Your task to perform on an android device: toggle data saver in the chrome app Image 0: 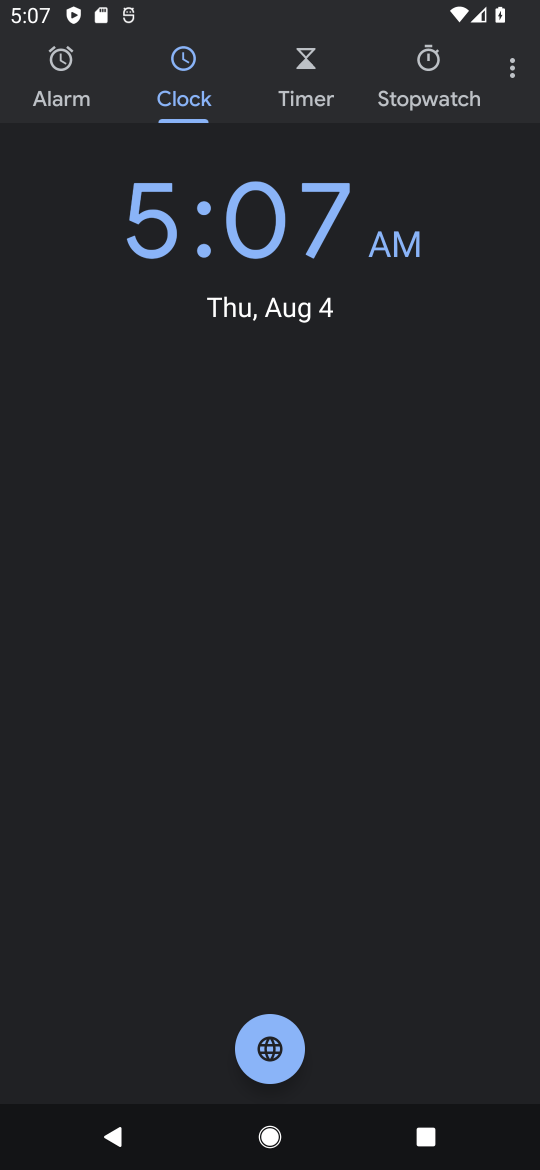
Step 0: press home button
Your task to perform on an android device: toggle data saver in the chrome app Image 1: 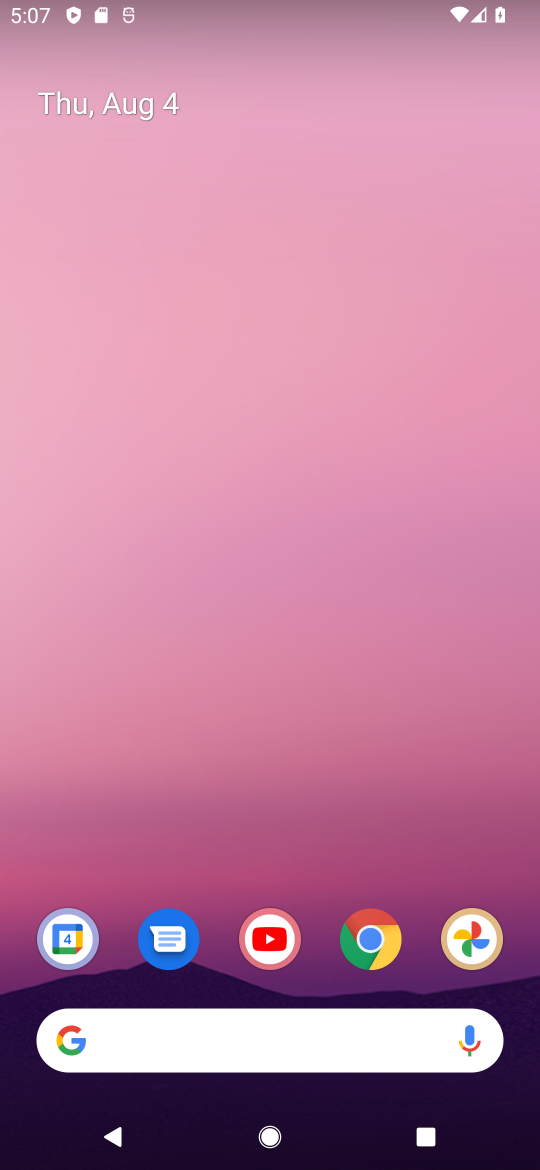
Step 1: click (355, 946)
Your task to perform on an android device: toggle data saver in the chrome app Image 2: 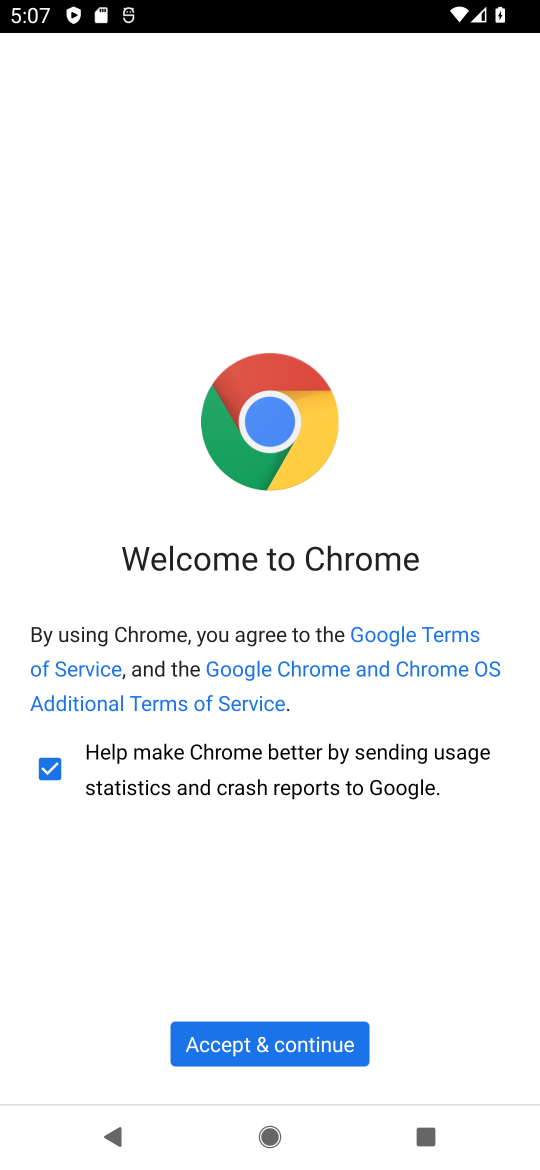
Step 2: click (331, 1050)
Your task to perform on an android device: toggle data saver in the chrome app Image 3: 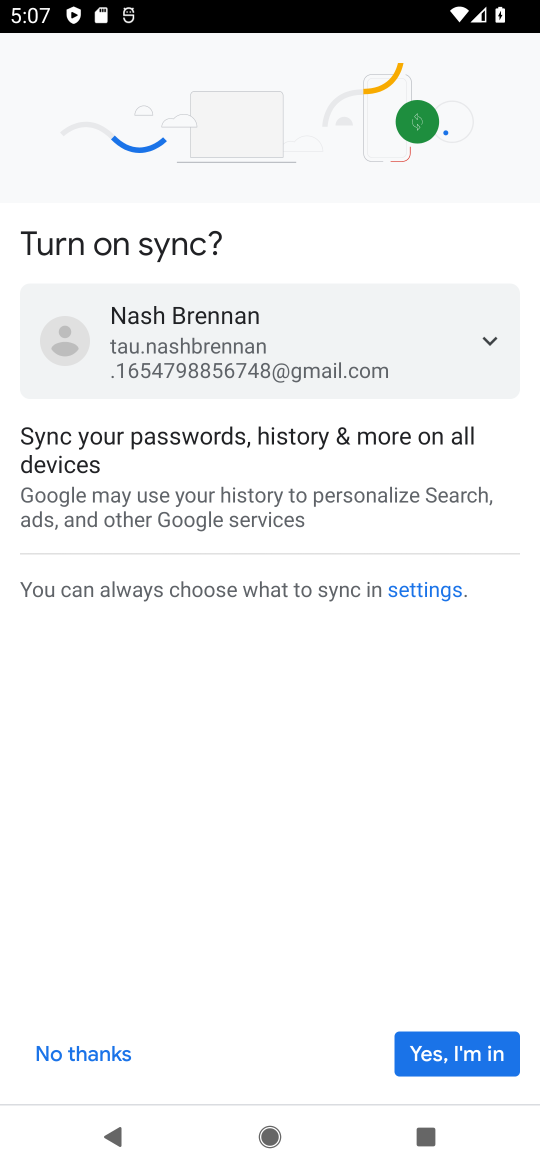
Step 3: click (442, 1048)
Your task to perform on an android device: toggle data saver in the chrome app Image 4: 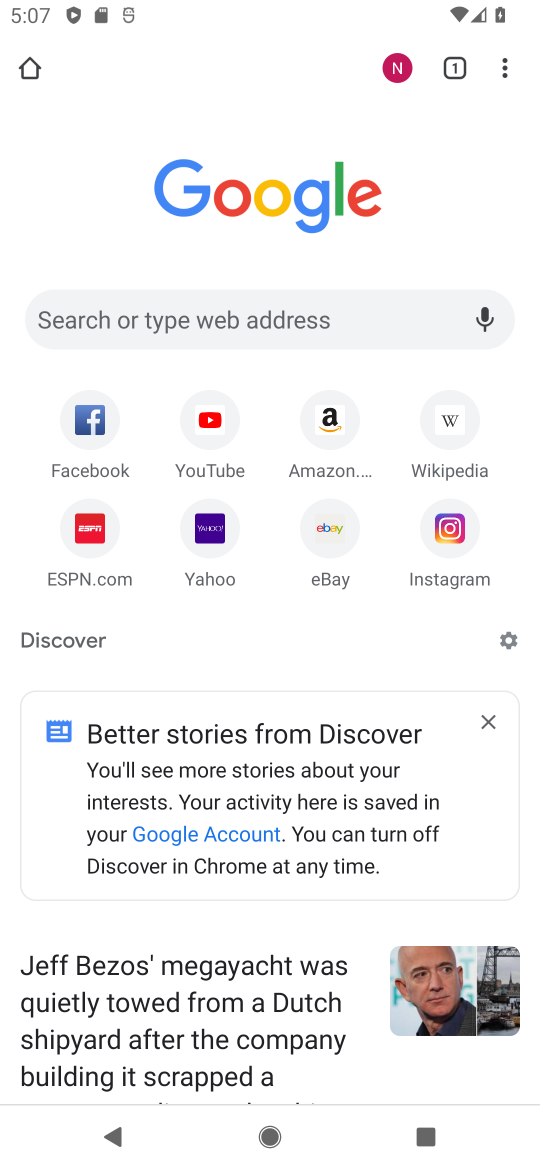
Step 4: click (506, 65)
Your task to perform on an android device: toggle data saver in the chrome app Image 5: 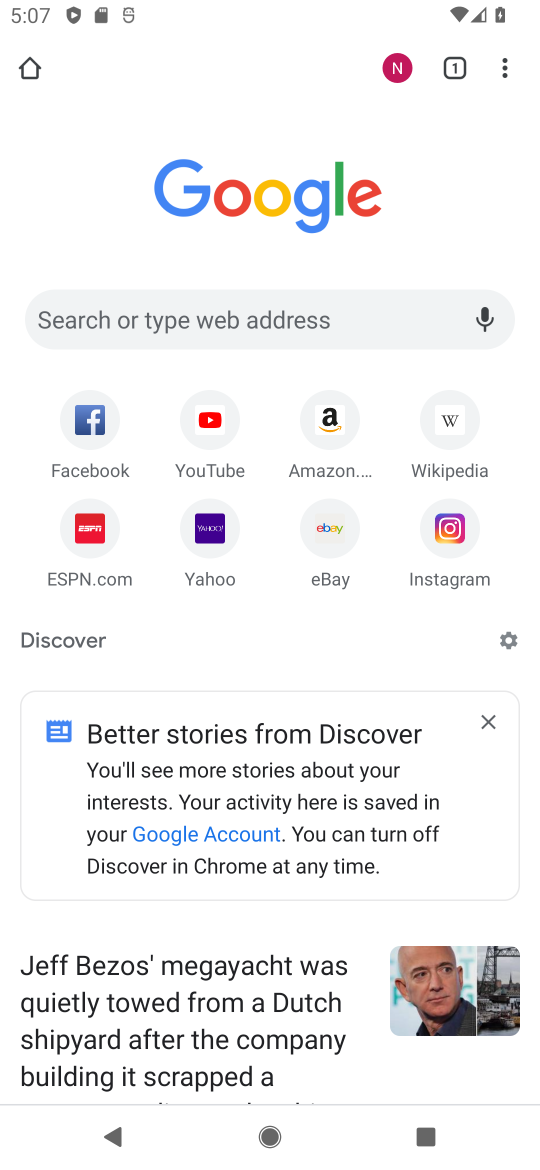
Step 5: click (506, 79)
Your task to perform on an android device: toggle data saver in the chrome app Image 6: 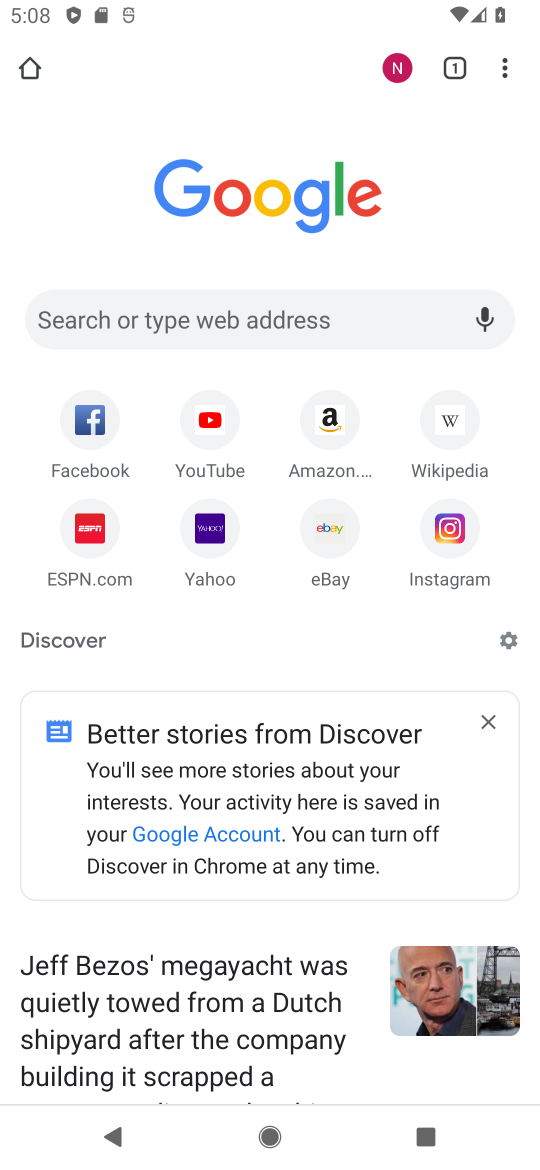
Step 6: click (509, 69)
Your task to perform on an android device: toggle data saver in the chrome app Image 7: 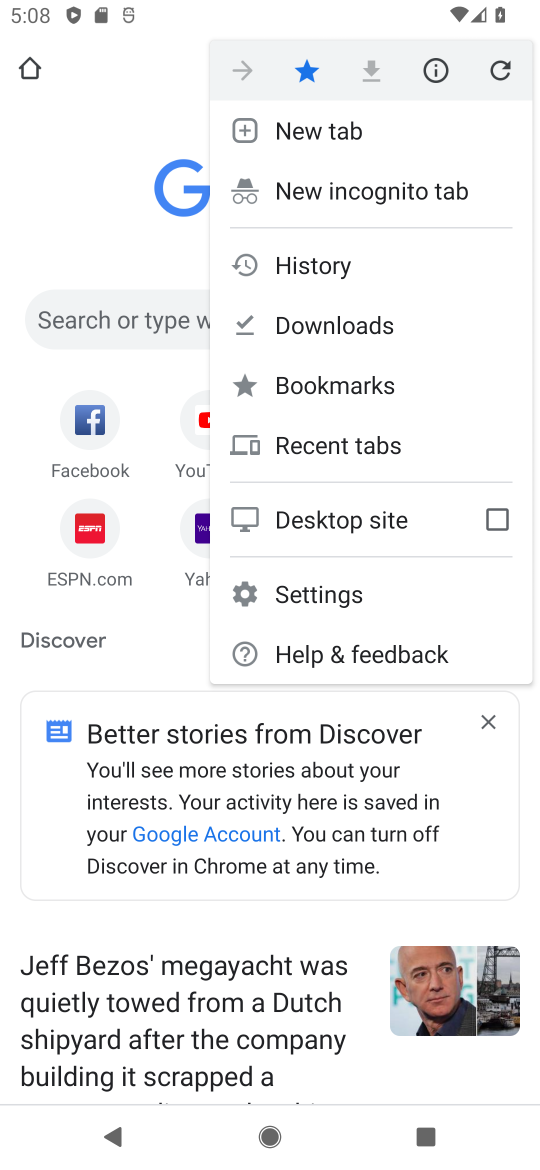
Step 7: click (329, 591)
Your task to perform on an android device: toggle data saver in the chrome app Image 8: 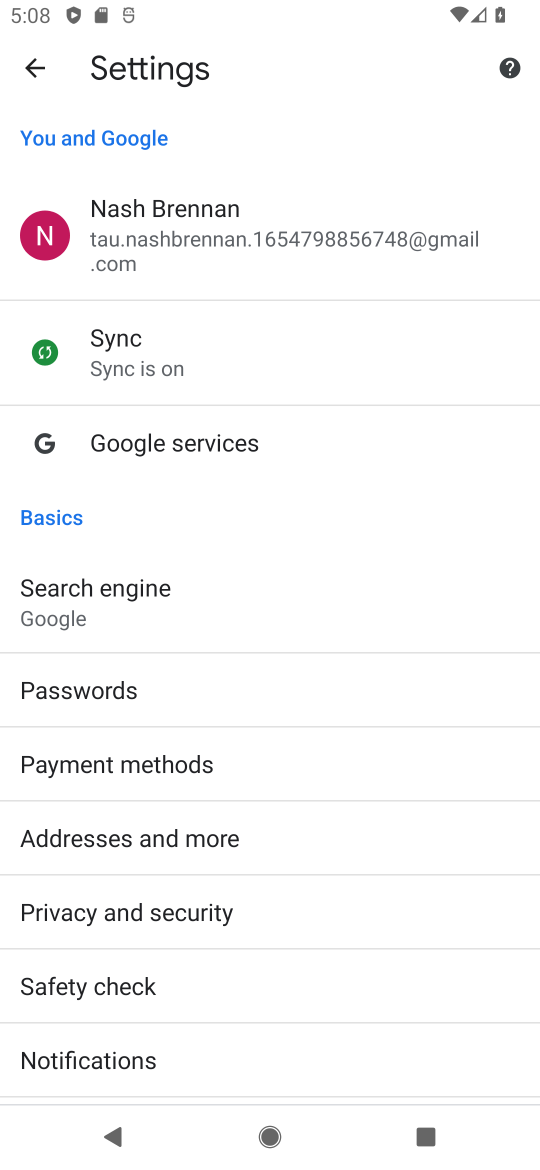
Step 8: drag from (81, 1042) to (112, 668)
Your task to perform on an android device: toggle data saver in the chrome app Image 9: 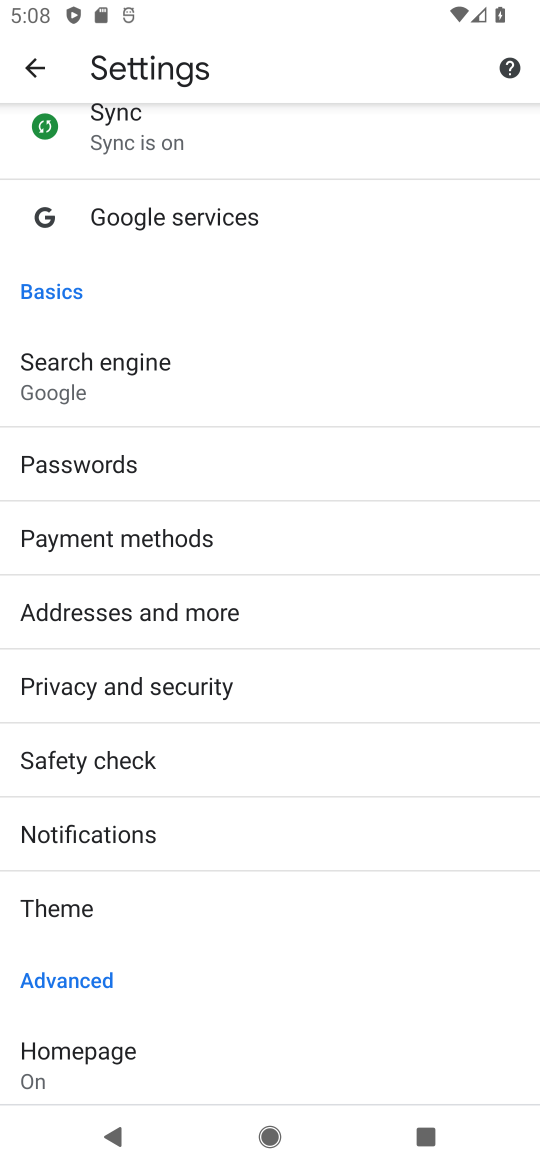
Step 9: drag from (120, 1090) to (149, 855)
Your task to perform on an android device: toggle data saver in the chrome app Image 10: 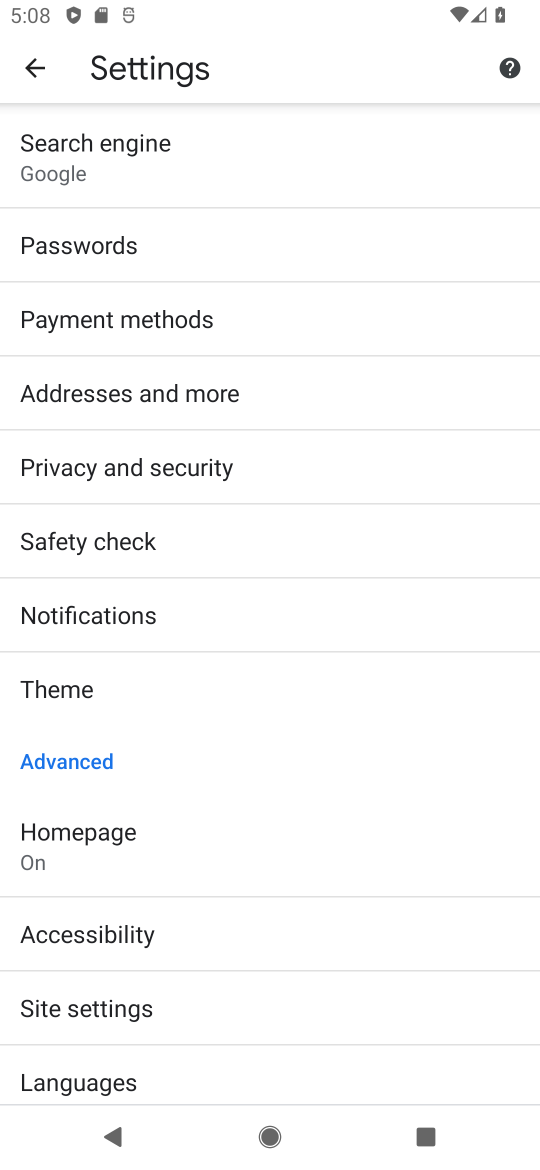
Step 10: drag from (151, 1087) to (213, 735)
Your task to perform on an android device: toggle data saver in the chrome app Image 11: 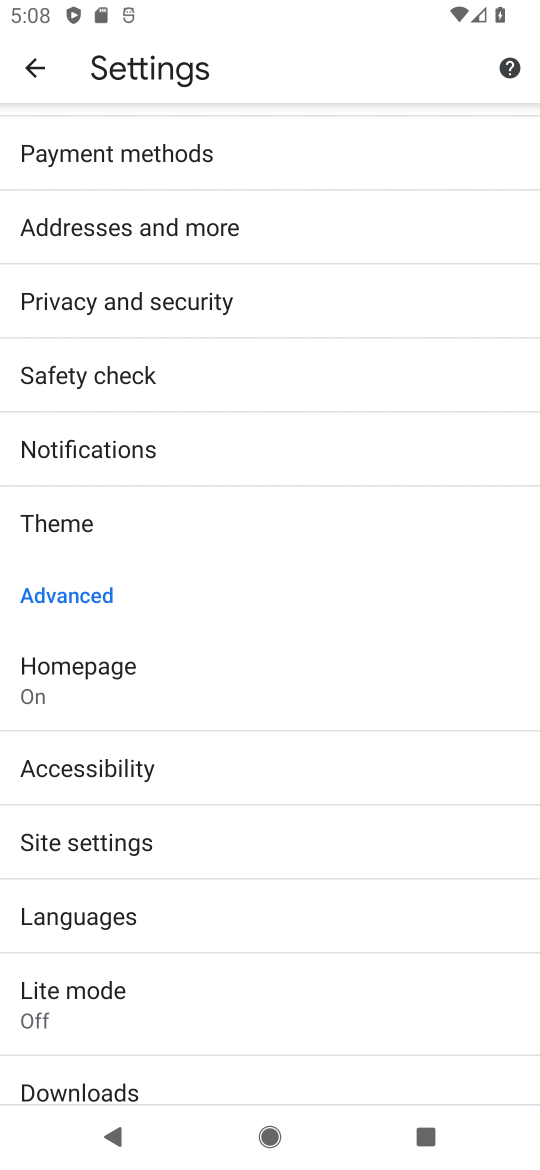
Step 11: click (109, 1024)
Your task to perform on an android device: toggle data saver in the chrome app Image 12: 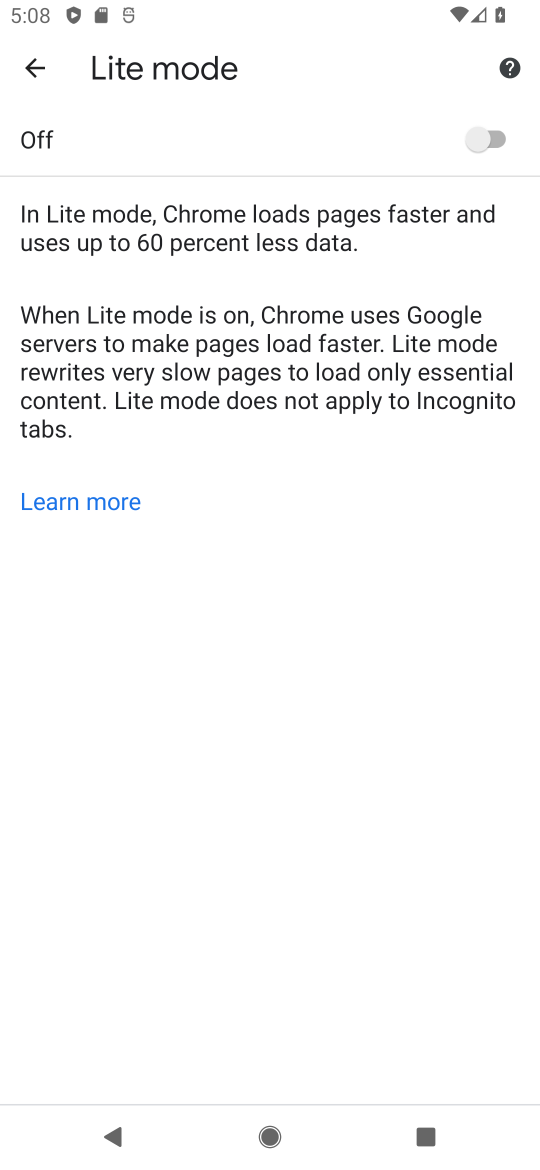
Step 12: click (502, 135)
Your task to perform on an android device: toggle data saver in the chrome app Image 13: 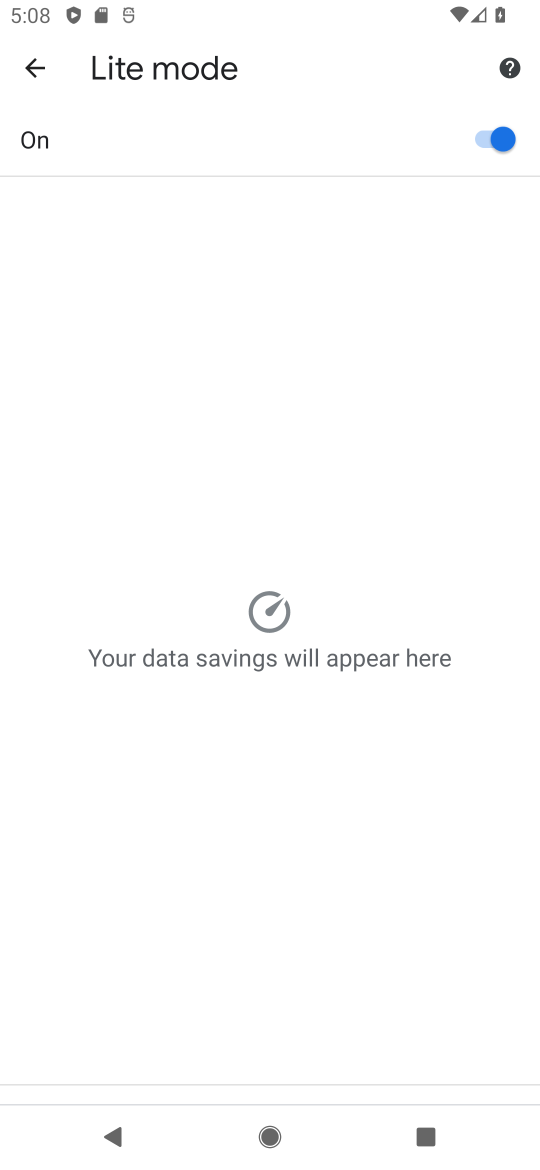
Step 13: task complete